Your task to perform on an android device: turn smart compose on in the gmail app Image 0: 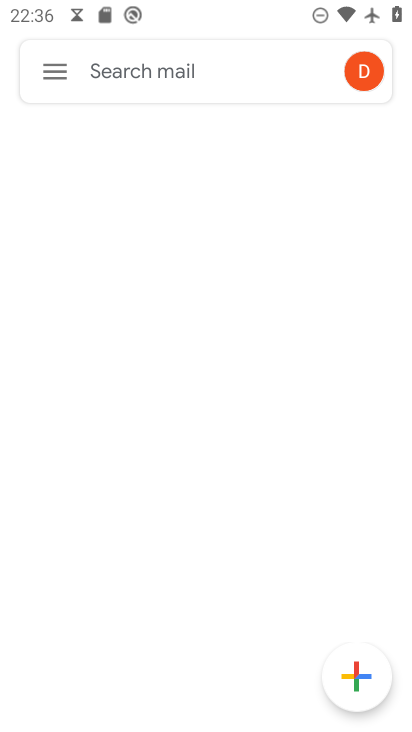
Step 0: press home button
Your task to perform on an android device: turn smart compose on in the gmail app Image 1: 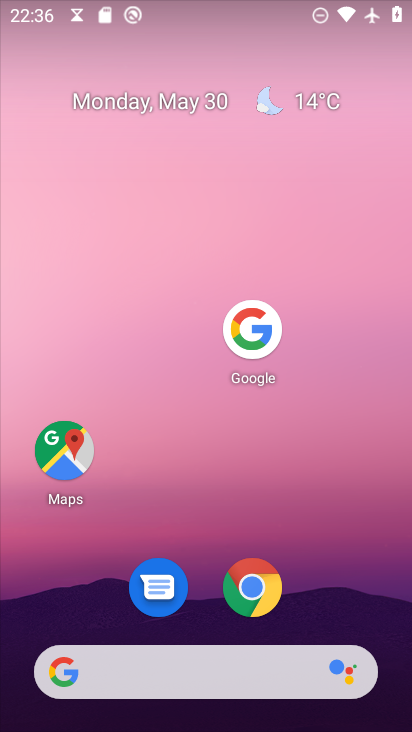
Step 1: drag from (123, 653) to (259, 27)
Your task to perform on an android device: turn smart compose on in the gmail app Image 2: 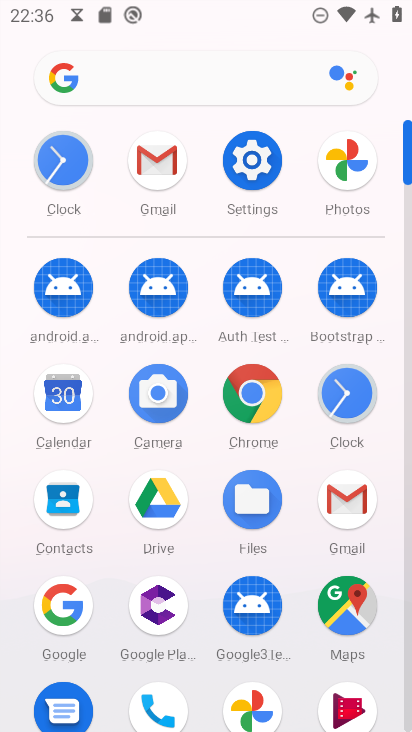
Step 2: click (148, 173)
Your task to perform on an android device: turn smart compose on in the gmail app Image 3: 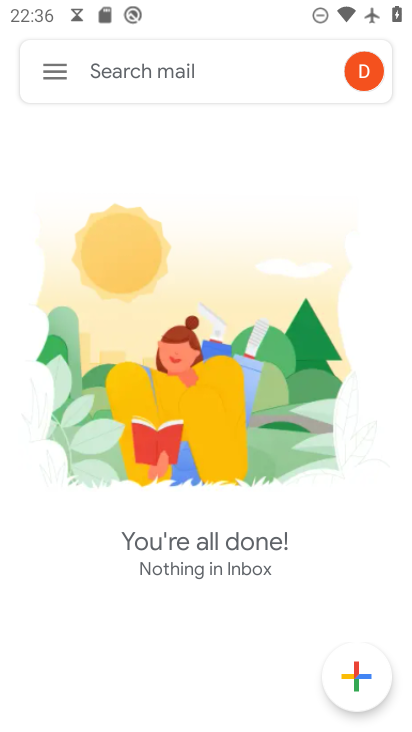
Step 3: click (46, 75)
Your task to perform on an android device: turn smart compose on in the gmail app Image 4: 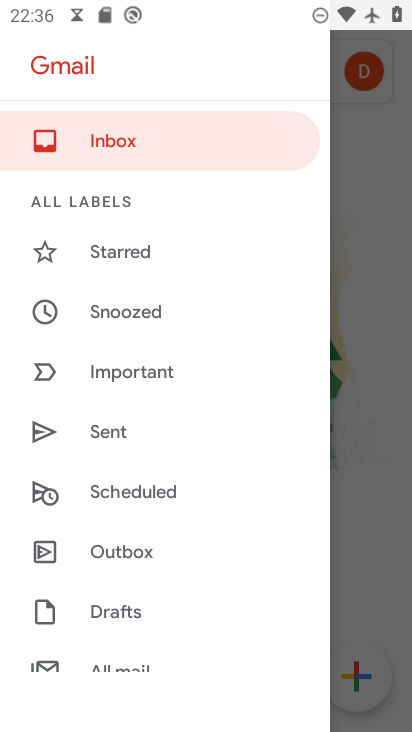
Step 4: drag from (208, 654) to (278, 65)
Your task to perform on an android device: turn smart compose on in the gmail app Image 5: 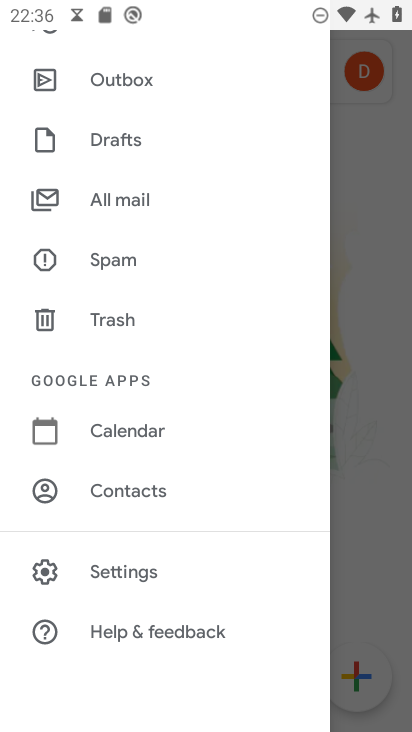
Step 5: click (139, 565)
Your task to perform on an android device: turn smart compose on in the gmail app Image 6: 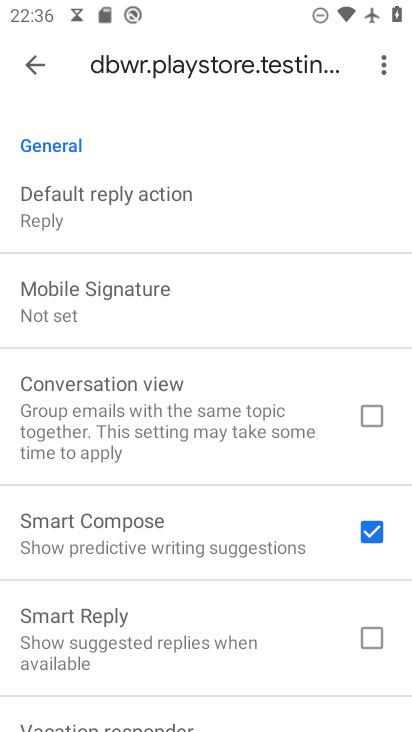
Step 6: task complete